Your task to perform on an android device: Open Google Image 0: 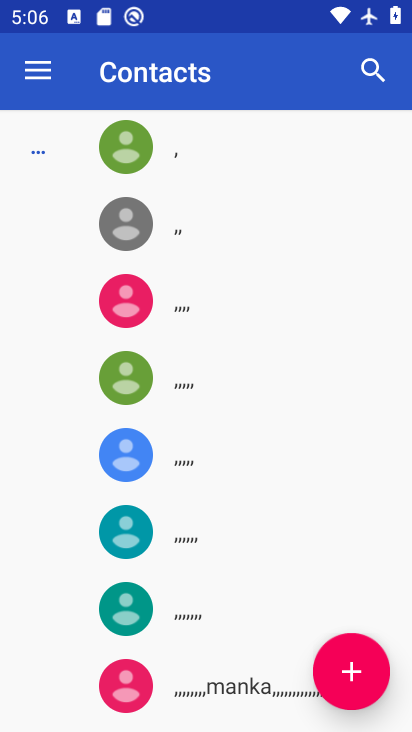
Step 0: press home button
Your task to perform on an android device: Open Google Image 1: 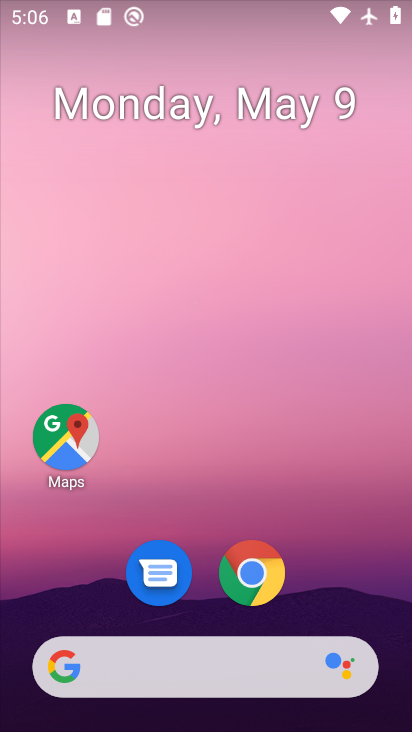
Step 1: click (253, 576)
Your task to perform on an android device: Open Google Image 2: 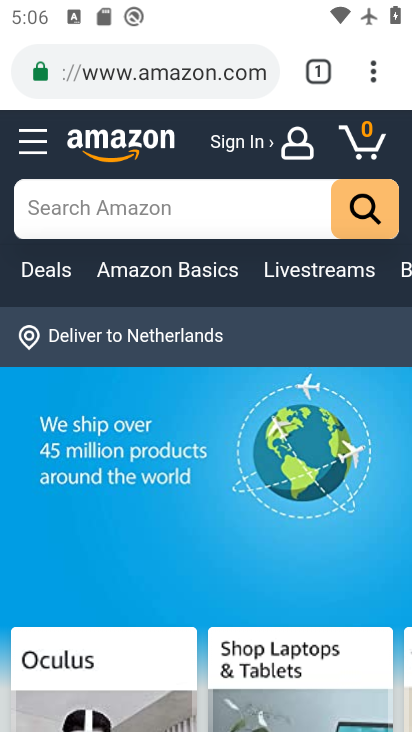
Step 2: task complete